Your task to perform on an android device: change text size in settings app Image 0: 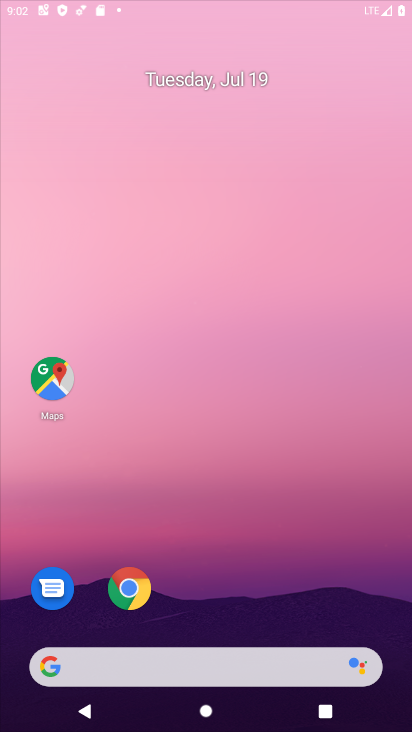
Step 0: click (134, 590)
Your task to perform on an android device: change text size in settings app Image 1: 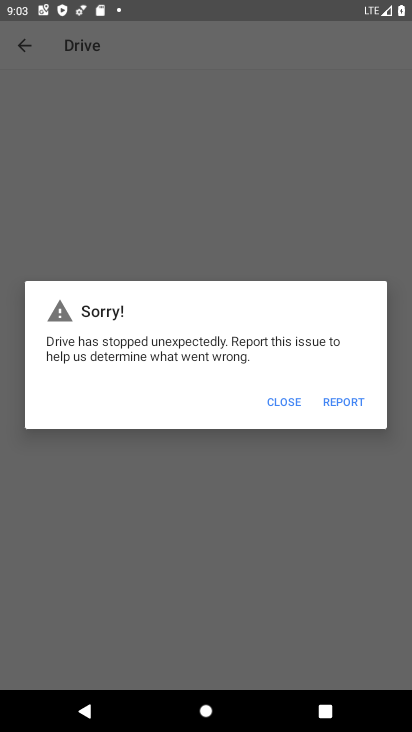
Step 1: press home button
Your task to perform on an android device: change text size in settings app Image 2: 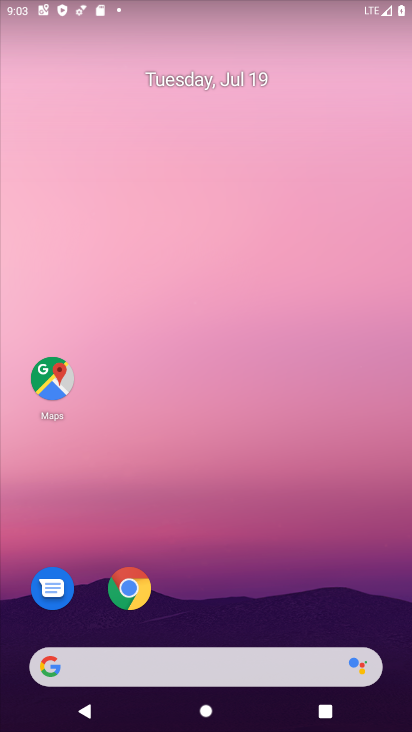
Step 2: drag from (262, 559) to (198, 132)
Your task to perform on an android device: change text size in settings app Image 3: 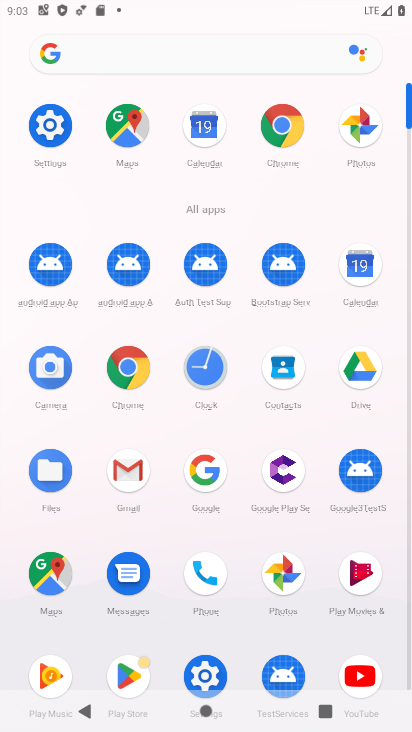
Step 3: click (38, 127)
Your task to perform on an android device: change text size in settings app Image 4: 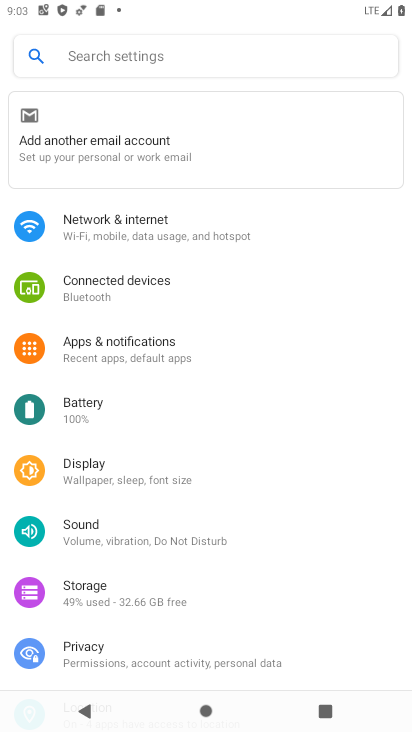
Step 4: click (101, 465)
Your task to perform on an android device: change text size in settings app Image 5: 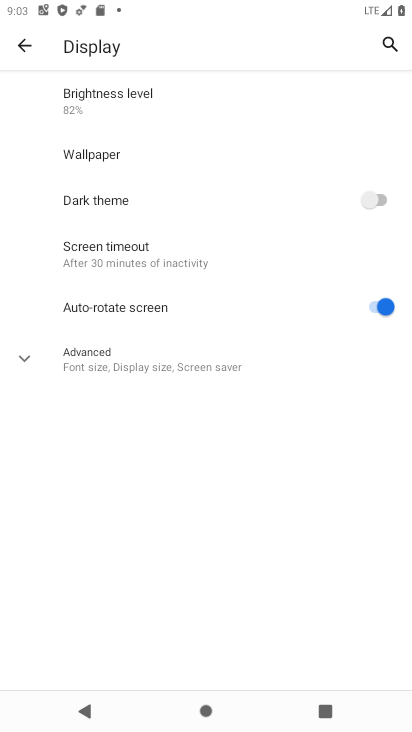
Step 5: click (82, 351)
Your task to perform on an android device: change text size in settings app Image 6: 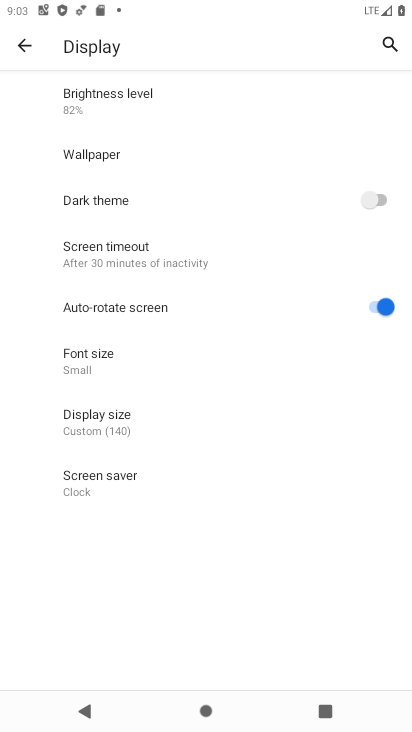
Step 6: click (87, 351)
Your task to perform on an android device: change text size in settings app Image 7: 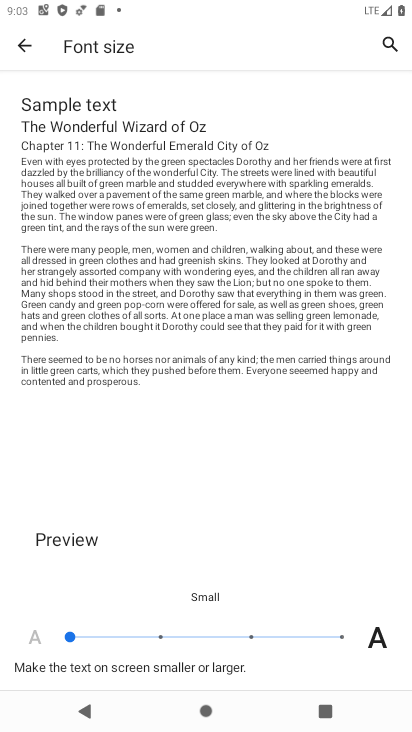
Step 7: click (150, 633)
Your task to perform on an android device: change text size in settings app Image 8: 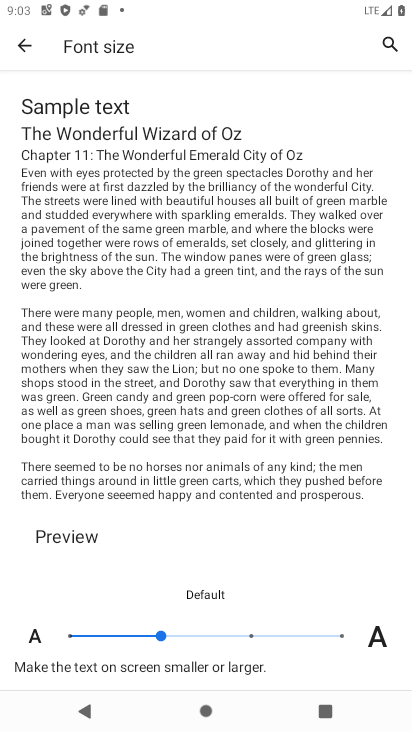
Step 8: task complete